Your task to perform on an android device: turn off data saver in the chrome app Image 0: 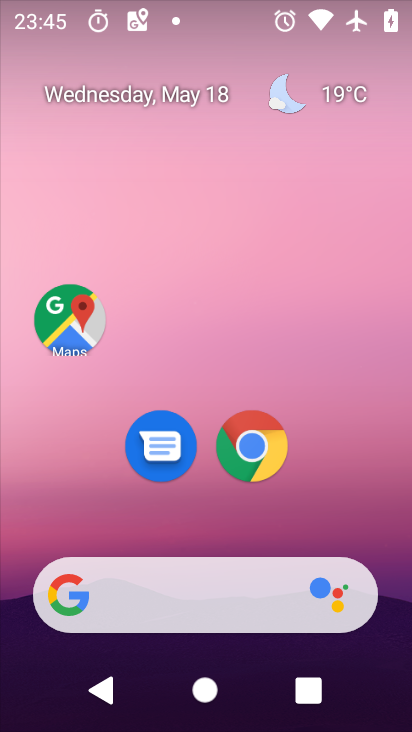
Step 0: press home button
Your task to perform on an android device: turn off data saver in the chrome app Image 1: 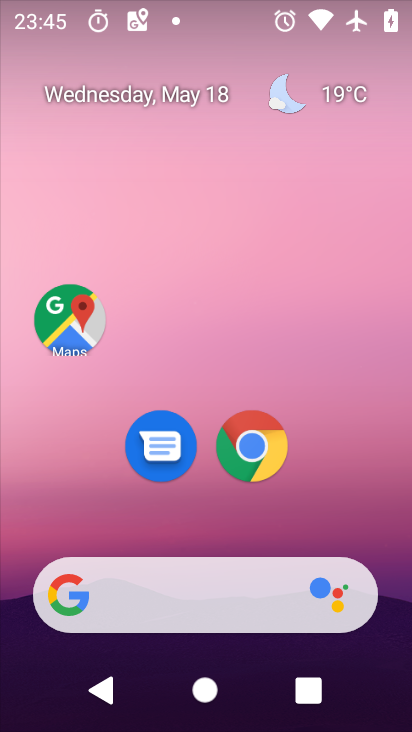
Step 1: drag from (181, 599) to (337, 7)
Your task to perform on an android device: turn off data saver in the chrome app Image 2: 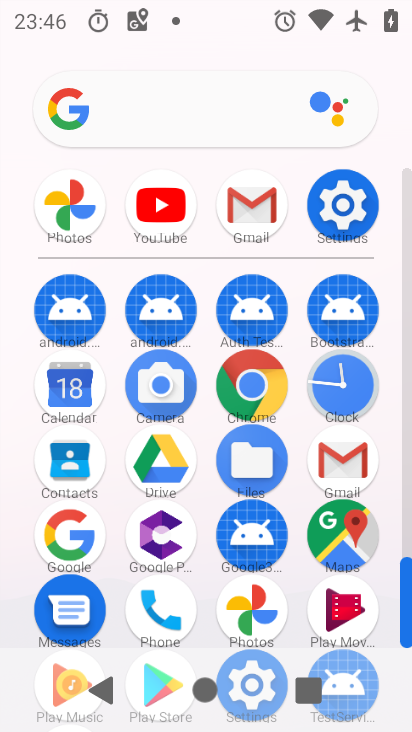
Step 2: click (249, 395)
Your task to perform on an android device: turn off data saver in the chrome app Image 3: 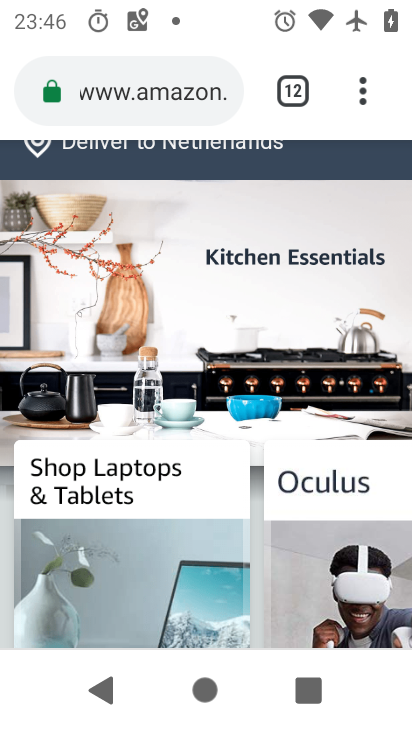
Step 3: drag from (365, 91) to (199, 460)
Your task to perform on an android device: turn off data saver in the chrome app Image 4: 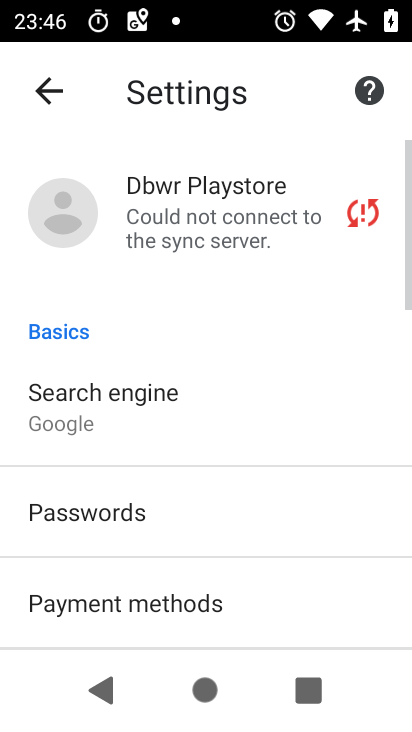
Step 4: drag from (183, 621) to (307, 175)
Your task to perform on an android device: turn off data saver in the chrome app Image 5: 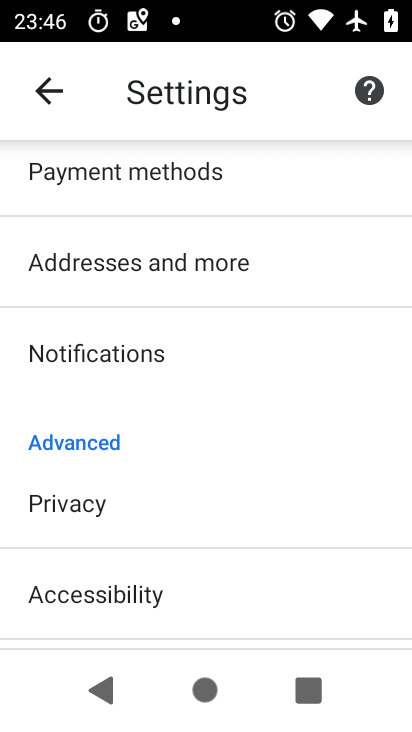
Step 5: drag from (194, 587) to (325, 178)
Your task to perform on an android device: turn off data saver in the chrome app Image 6: 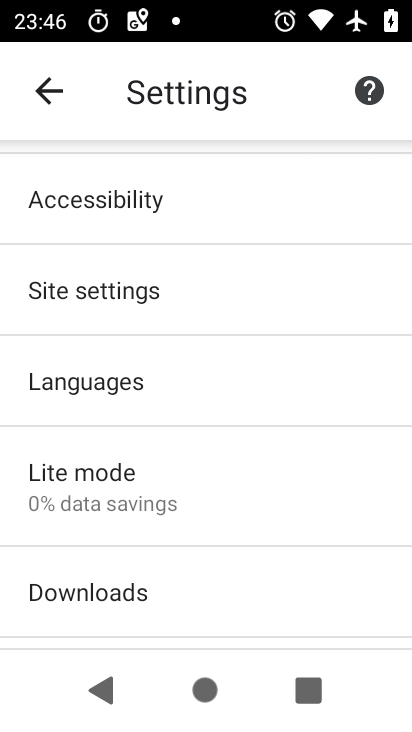
Step 6: click (135, 496)
Your task to perform on an android device: turn off data saver in the chrome app Image 7: 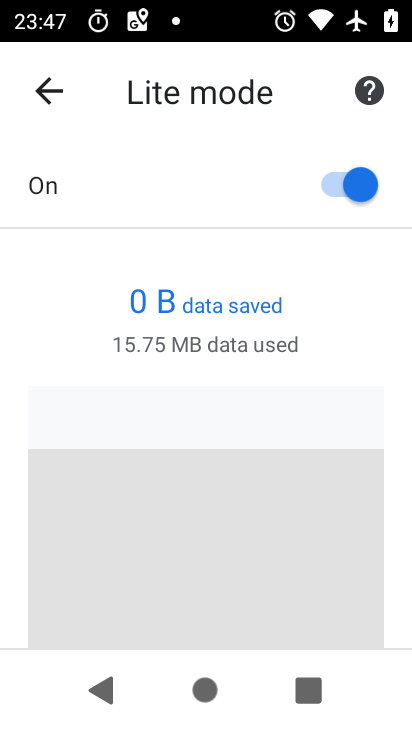
Step 7: task complete